Your task to perform on an android device: turn on translation in the chrome app Image 0: 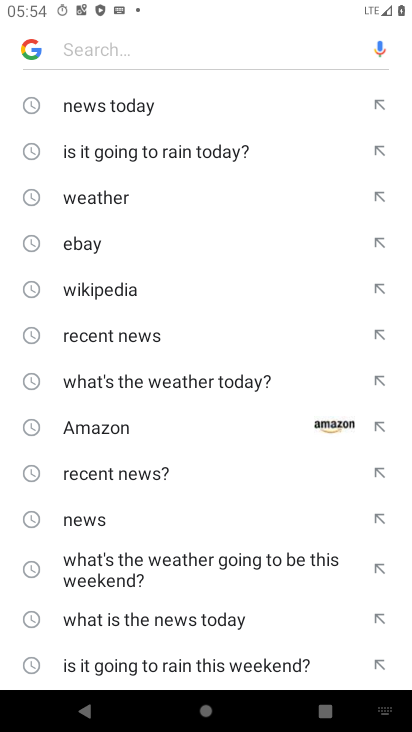
Step 0: press home button
Your task to perform on an android device: turn on translation in the chrome app Image 1: 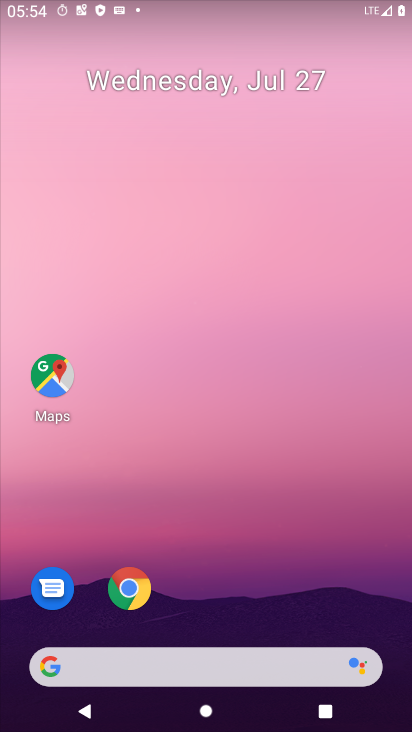
Step 1: drag from (279, 639) to (377, 16)
Your task to perform on an android device: turn on translation in the chrome app Image 2: 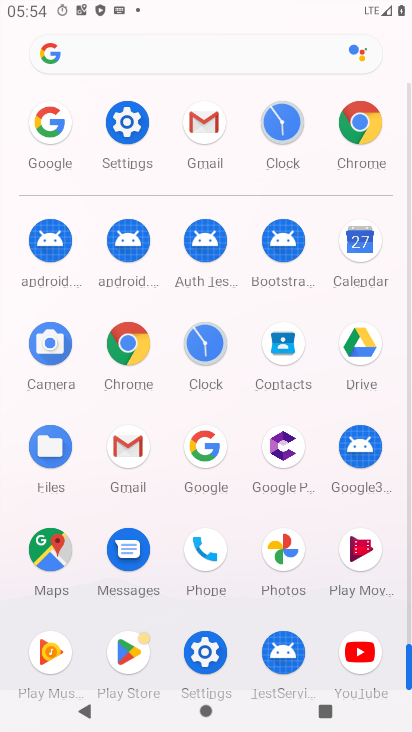
Step 2: click (129, 344)
Your task to perform on an android device: turn on translation in the chrome app Image 3: 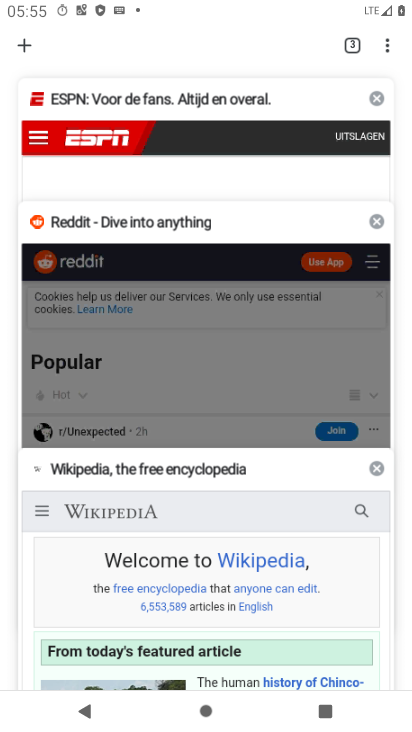
Step 3: click (386, 41)
Your task to perform on an android device: turn on translation in the chrome app Image 4: 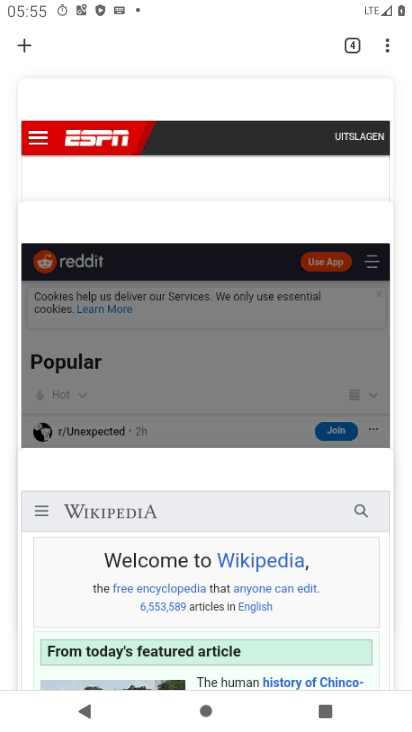
Step 4: drag from (387, 51) to (241, 386)
Your task to perform on an android device: turn on translation in the chrome app Image 5: 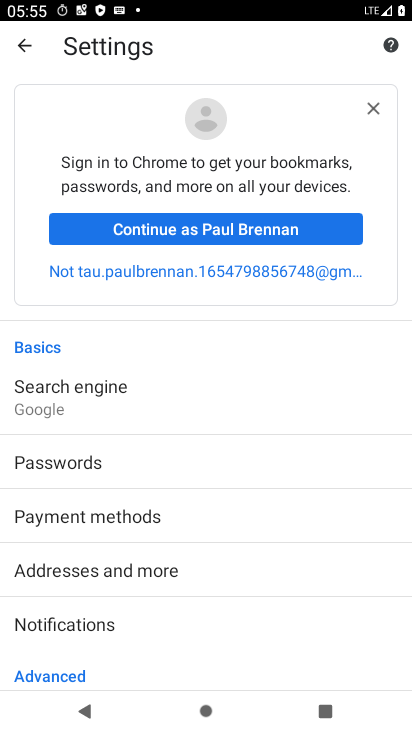
Step 5: drag from (237, 643) to (282, 255)
Your task to perform on an android device: turn on translation in the chrome app Image 6: 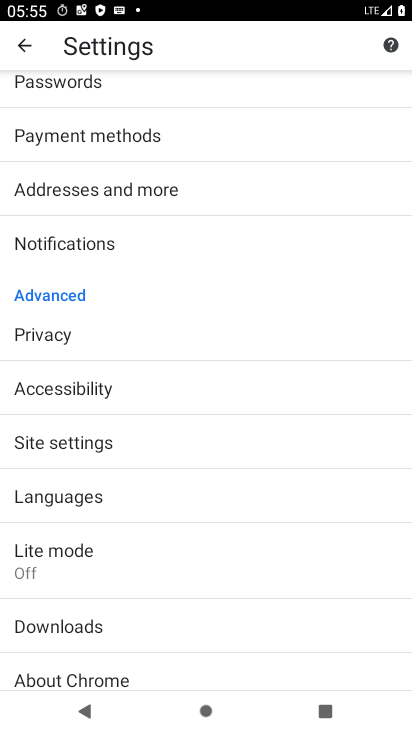
Step 6: click (92, 487)
Your task to perform on an android device: turn on translation in the chrome app Image 7: 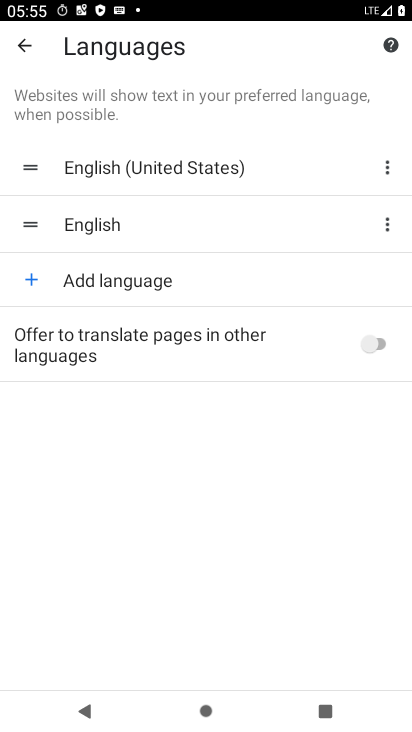
Step 7: click (375, 339)
Your task to perform on an android device: turn on translation in the chrome app Image 8: 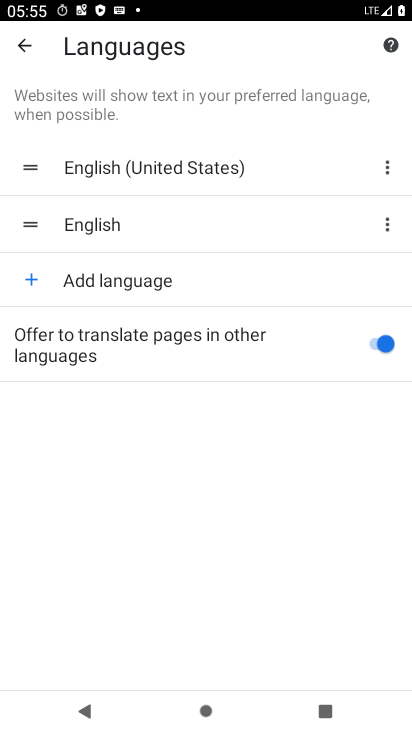
Step 8: task complete